Your task to perform on an android device: Clear the cart on bestbuy. Search for razer nari on bestbuy, select the first entry, add it to the cart, then select checkout. Image 0: 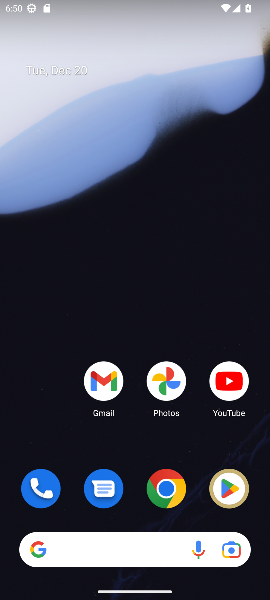
Step 0: drag from (51, 412) to (24, 50)
Your task to perform on an android device: Clear the cart on bestbuy. Search for razer nari on bestbuy, select the first entry, add it to the cart, then select checkout. Image 1: 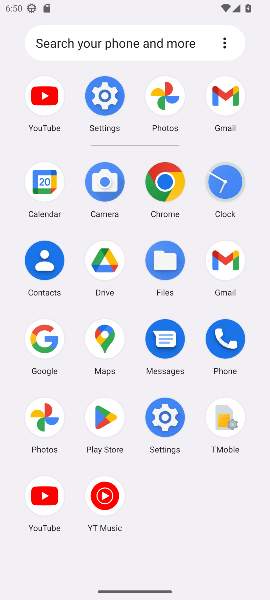
Step 1: click (45, 335)
Your task to perform on an android device: Clear the cart on bestbuy. Search for razer nari on bestbuy, select the first entry, add it to the cart, then select checkout. Image 2: 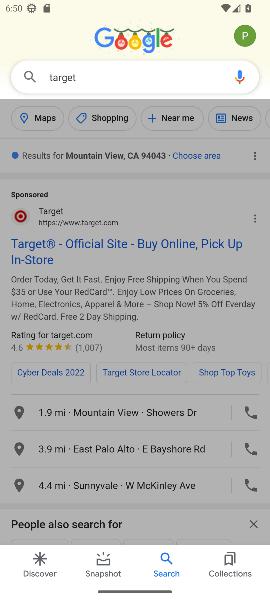
Step 2: click (112, 74)
Your task to perform on an android device: Clear the cart on bestbuy. Search for razer nari on bestbuy, select the first entry, add it to the cart, then select checkout. Image 3: 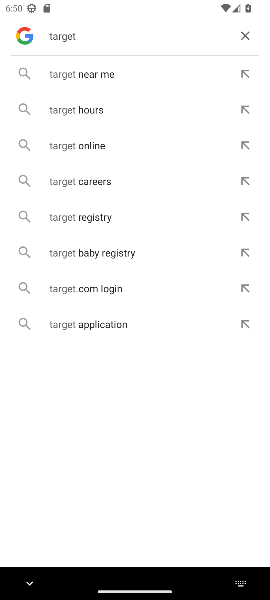
Step 3: click (243, 31)
Your task to perform on an android device: Clear the cart on bestbuy. Search for razer nari on bestbuy, select the first entry, add it to the cart, then select checkout. Image 4: 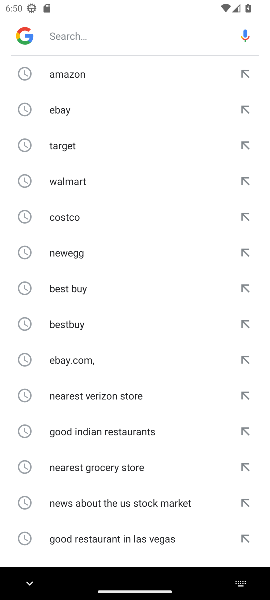
Step 4: type "bestbuy"
Your task to perform on an android device: Clear the cart on bestbuy. Search for razer nari on bestbuy, select the first entry, add it to the cart, then select checkout. Image 5: 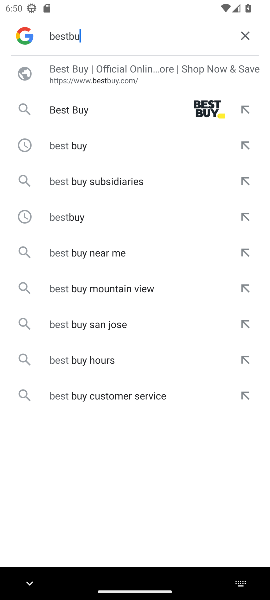
Step 5: press enter
Your task to perform on an android device: Clear the cart on bestbuy. Search for razer nari on bestbuy, select the first entry, add it to the cart, then select checkout. Image 6: 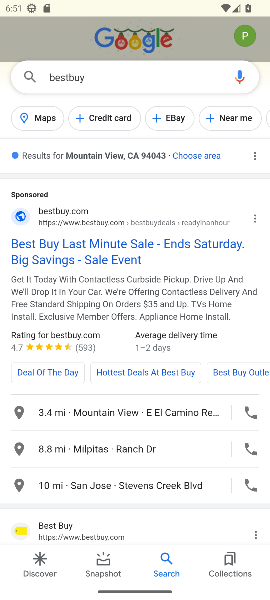
Step 6: click (116, 243)
Your task to perform on an android device: Clear the cart on bestbuy. Search for razer nari on bestbuy, select the first entry, add it to the cart, then select checkout. Image 7: 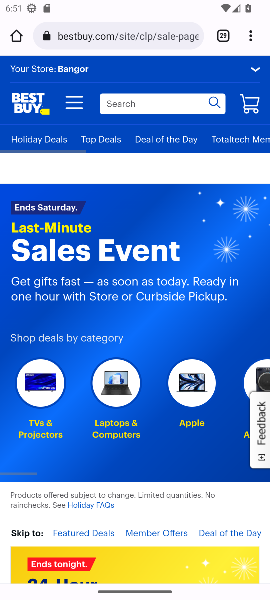
Step 7: click (250, 103)
Your task to perform on an android device: Clear the cart on bestbuy. Search for razer nari on bestbuy, select the first entry, add it to the cart, then select checkout. Image 8: 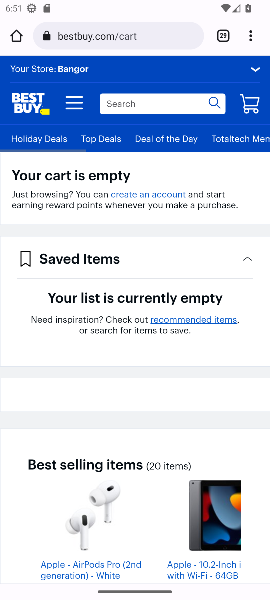
Step 8: click (139, 98)
Your task to perform on an android device: Clear the cart on bestbuy. Search for razer nari on bestbuy, select the first entry, add it to the cart, then select checkout. Image 9: 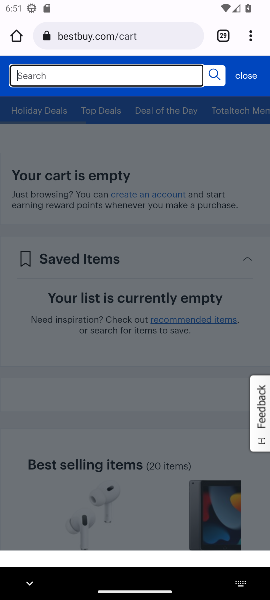
Step 9: type "razer nari"
Your task to perform on an android device: Clear the cart on bestbuy. Search for razer nari on bestbuy, select the first entry, add it to the cart, then select checkout. Image 10: 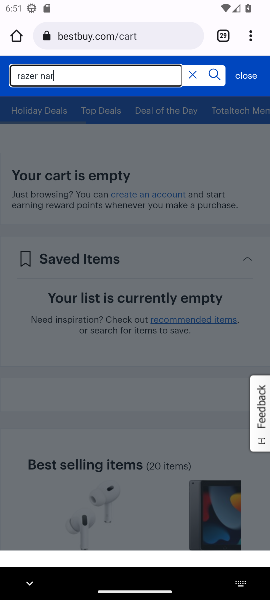
Step 10: press enter
Your task to perform on an android device: Clear the cart on bestbuy. Search for razer nari on bestbuy, select the first entry, add it to the cart, then select checkout. Image 11: 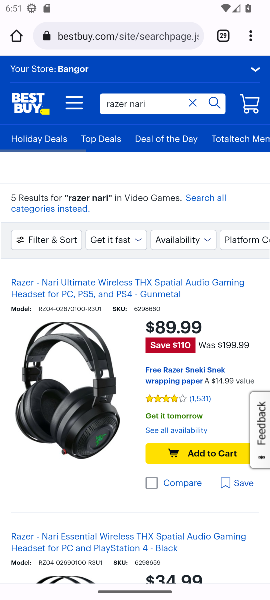
Step 11: click (192, 452)
Your task to perform on an android device: Clear the cart on bestbuy. Search for razer nari on bestbuy, select the first entry, add it to the cart, then select checkout. Image 12: 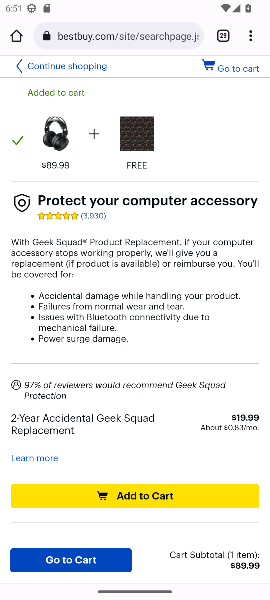
Step 12: click (68, 559)
Your task to perform on an android device: Clear the cart on bestbuy. Search for razer nari on bestbuy, select the first entry, add it to the cart, then select checkout. Image 13: 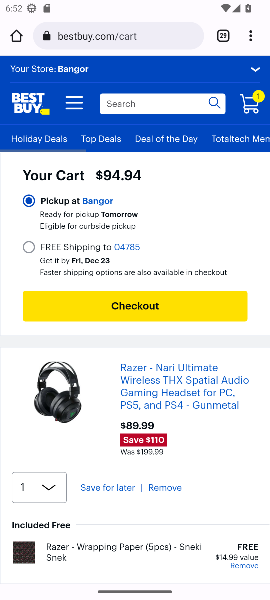
Step 13: task complete